Your task to perform on an android device: open app "Reddit" Image 0: 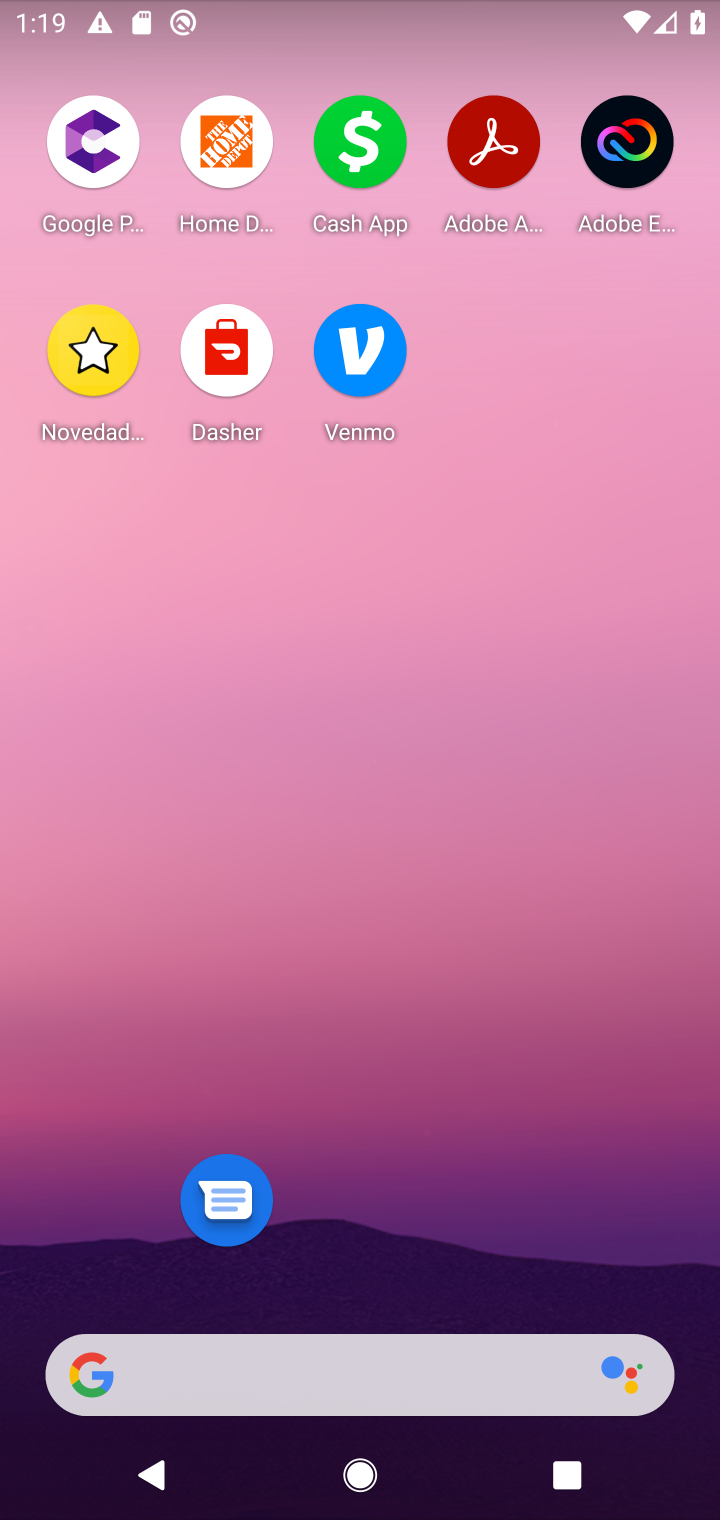
Step 0: drag from (439, 1150) to (419, 225)
Your task to perform on an android device: open app "Reddit" Image 1: 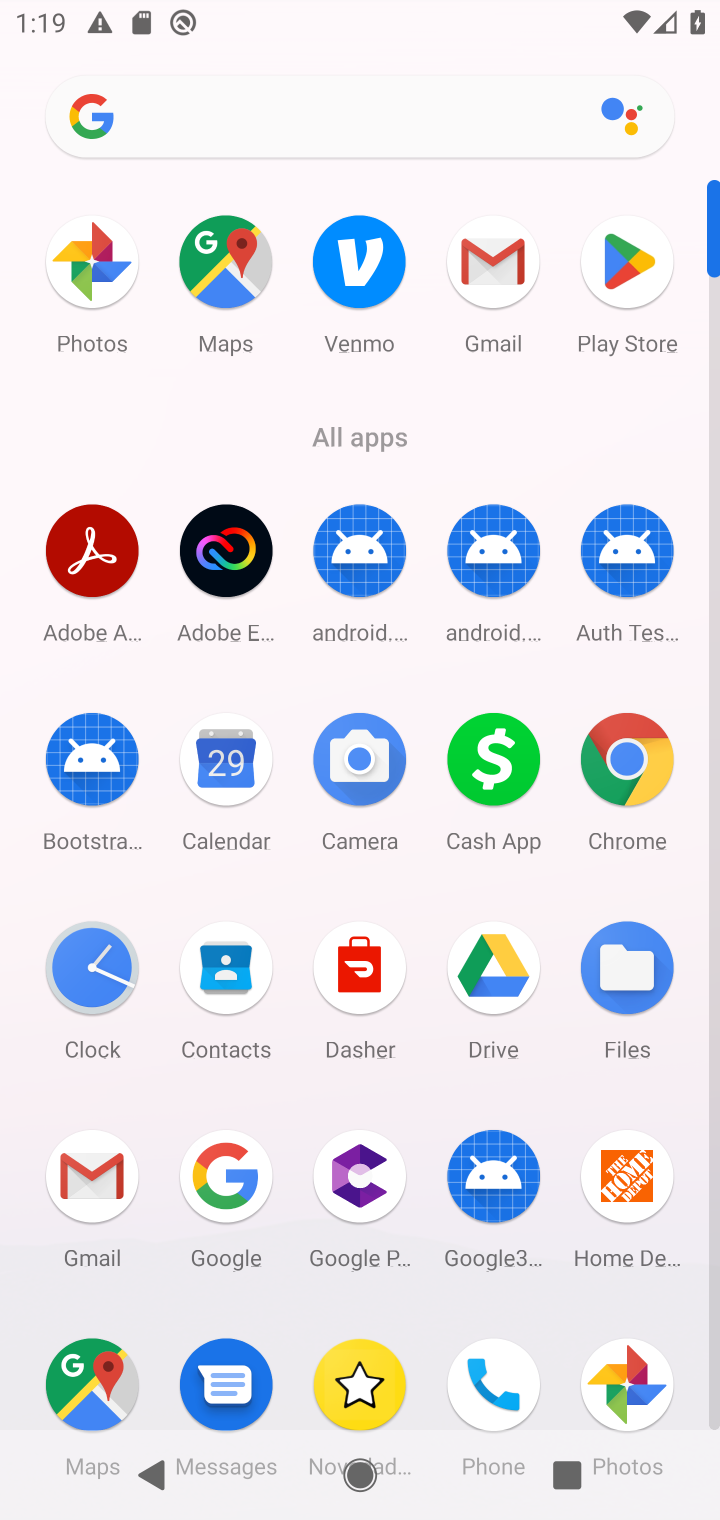
Step 1: click (625, 264)
Your task to perform on an android device: open app "Reddit" Image 2: 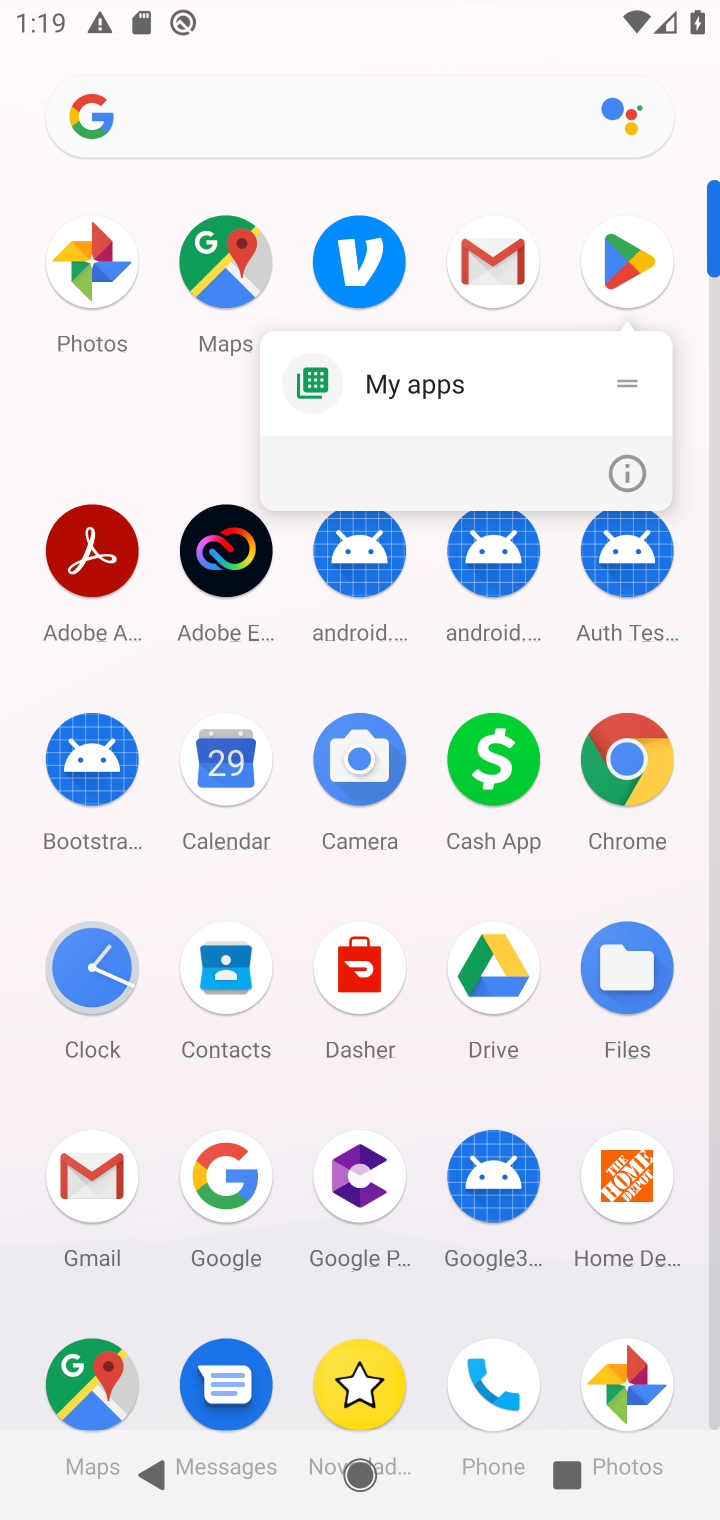
Step 2: click (625, 264)
Your task to perform on an android device: open app "Reddit" Image 3: 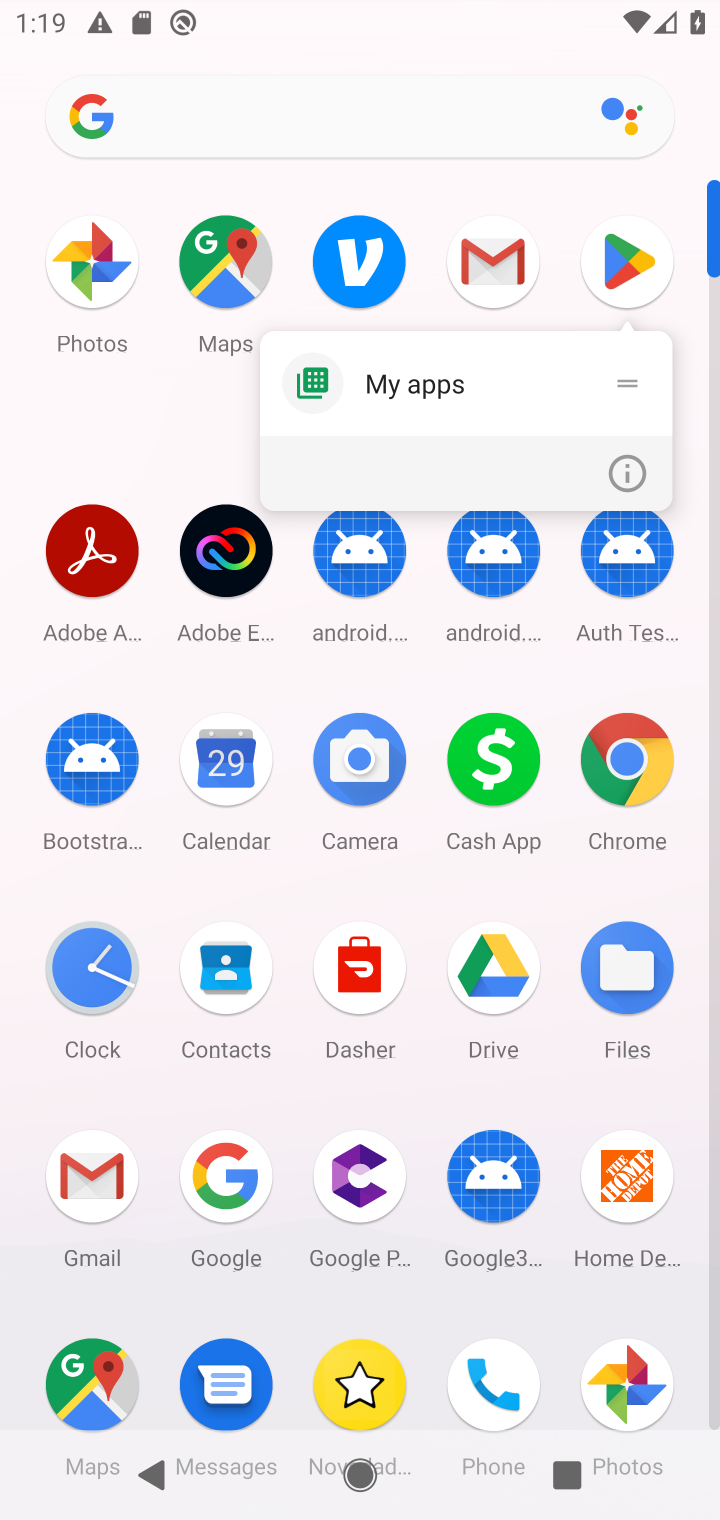
Step 3: click (632, 277)
Your task to perform on an android device: open app "Reddit" Image 4: 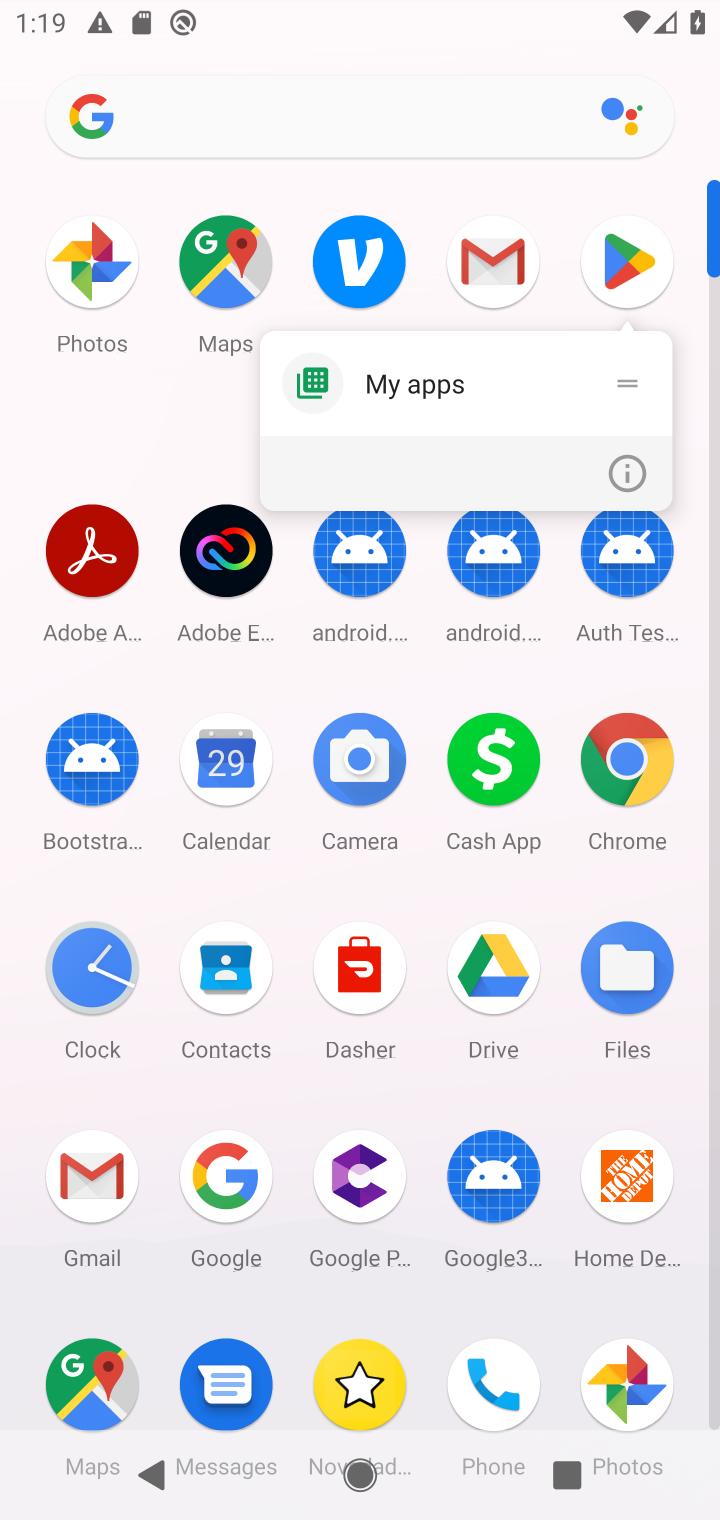
Step 4: click (631, 268)
Your task to perform on an android device: open app "Reddit" Image 5: 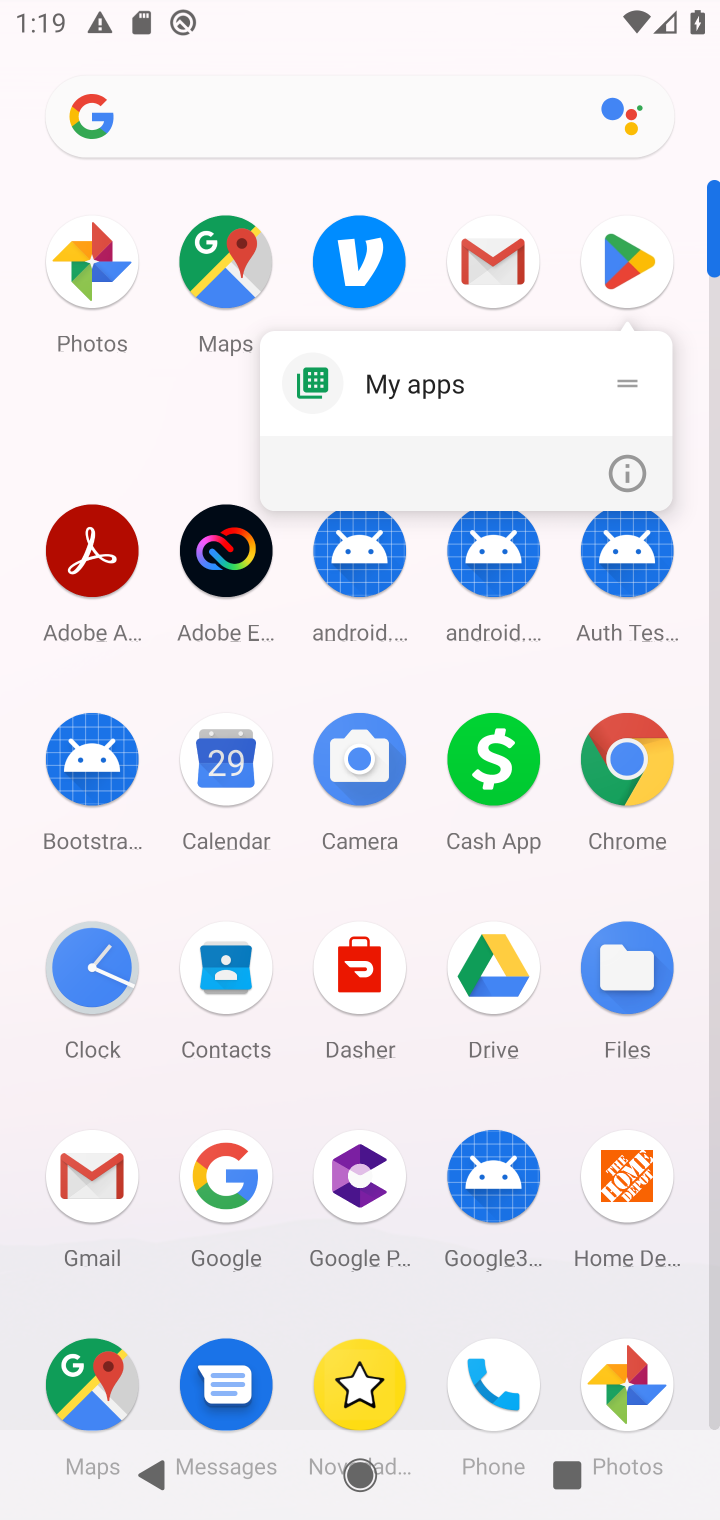
Step 5: click (631, 268)
Your task to perform on an android device: open app "Reddit" Image 6: 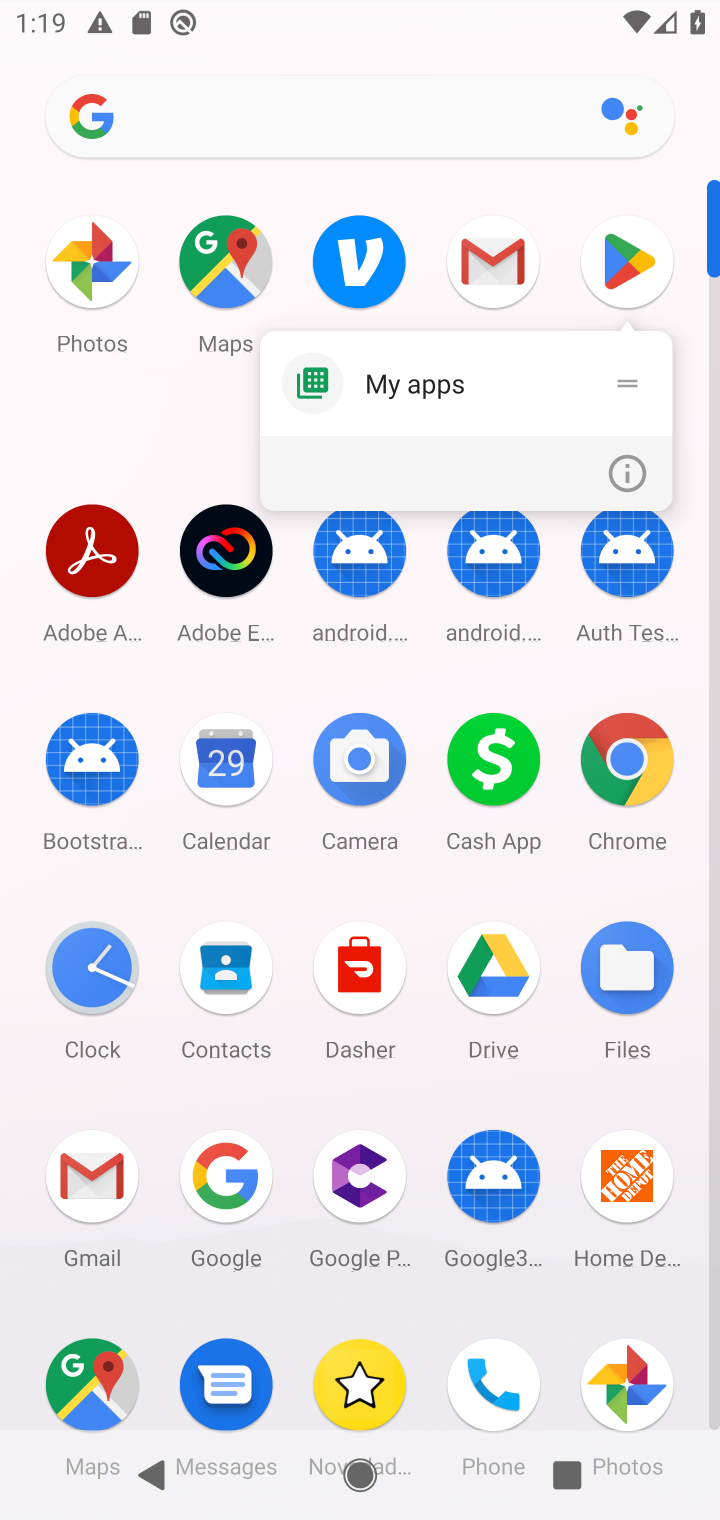
Step 6: click (72, 426)
Your task to perform on an android device: open app "Reddit" Image 7: 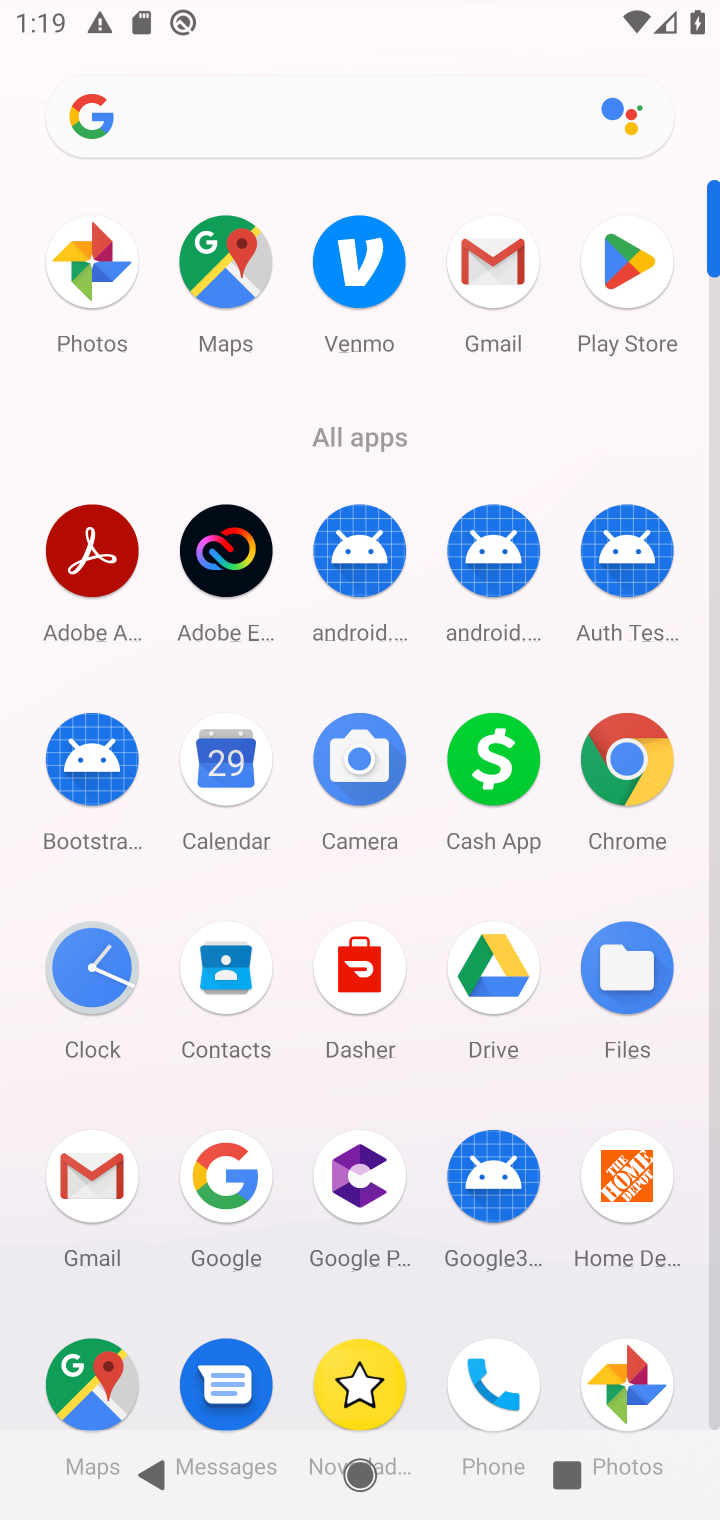
Step 7: click (613, 273)
Your task to perform on an android device: open app "Reddit" Image 8: 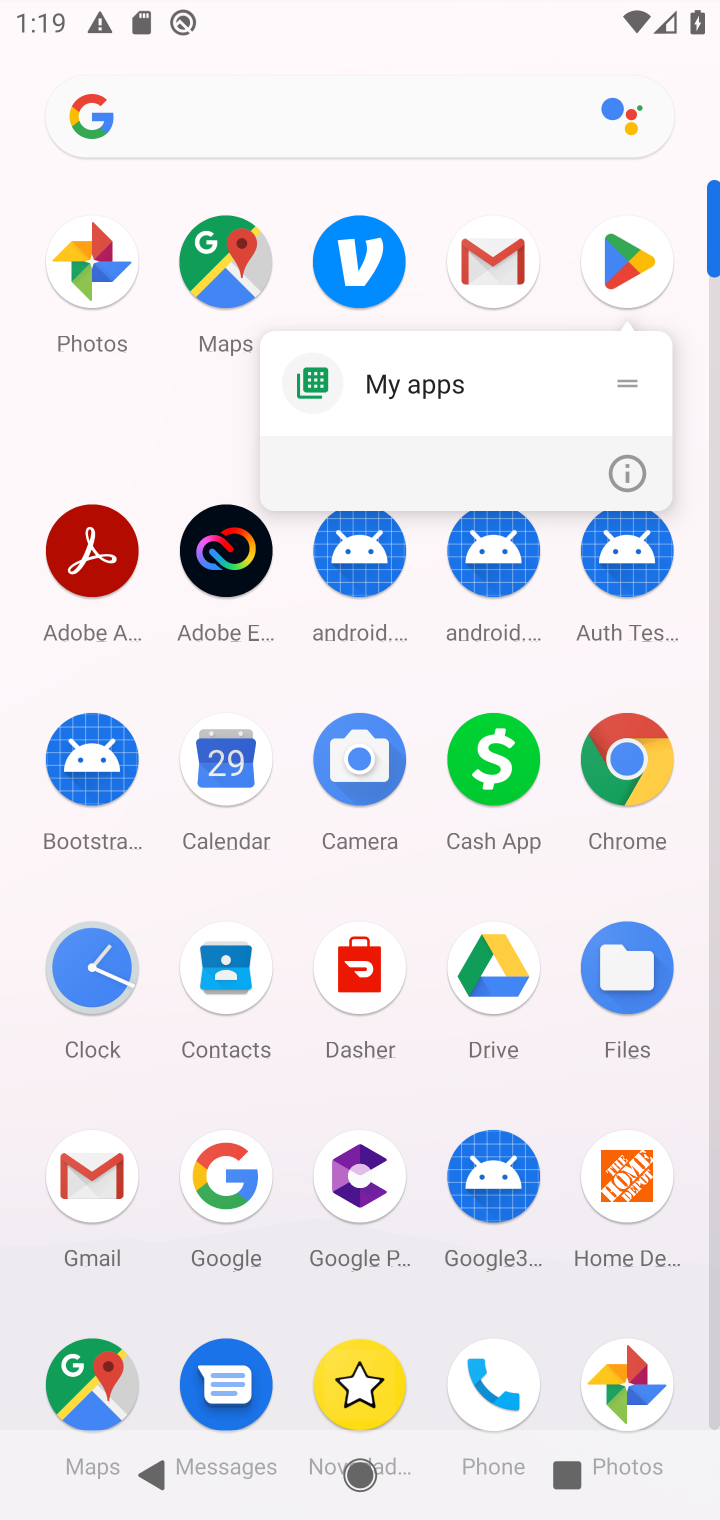
Step 8: click (628, 258)
Your task to perform on an android device: open app "Reddit" Image 9: 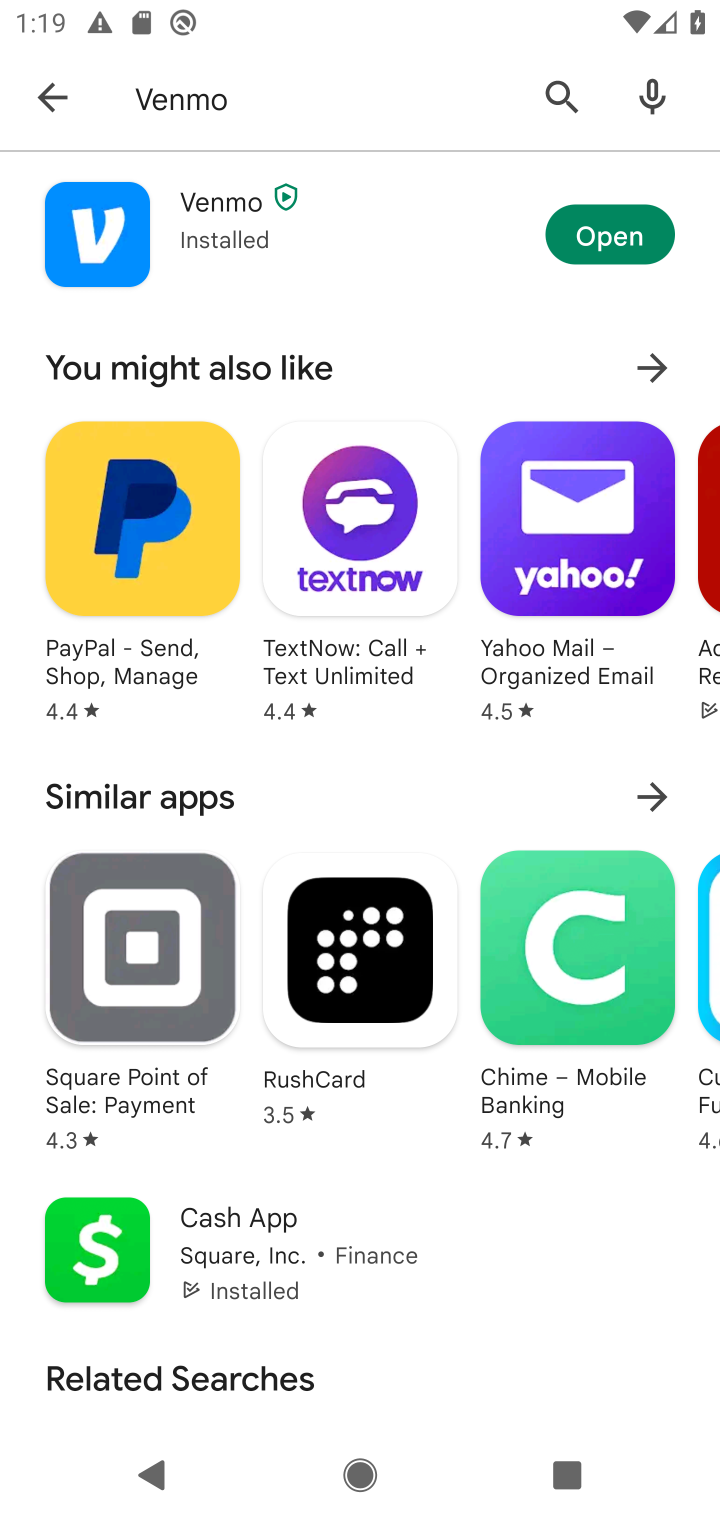
Step 9: click (313, 94)
Your task to perform on an android device: open app "Reddit" Image 10: 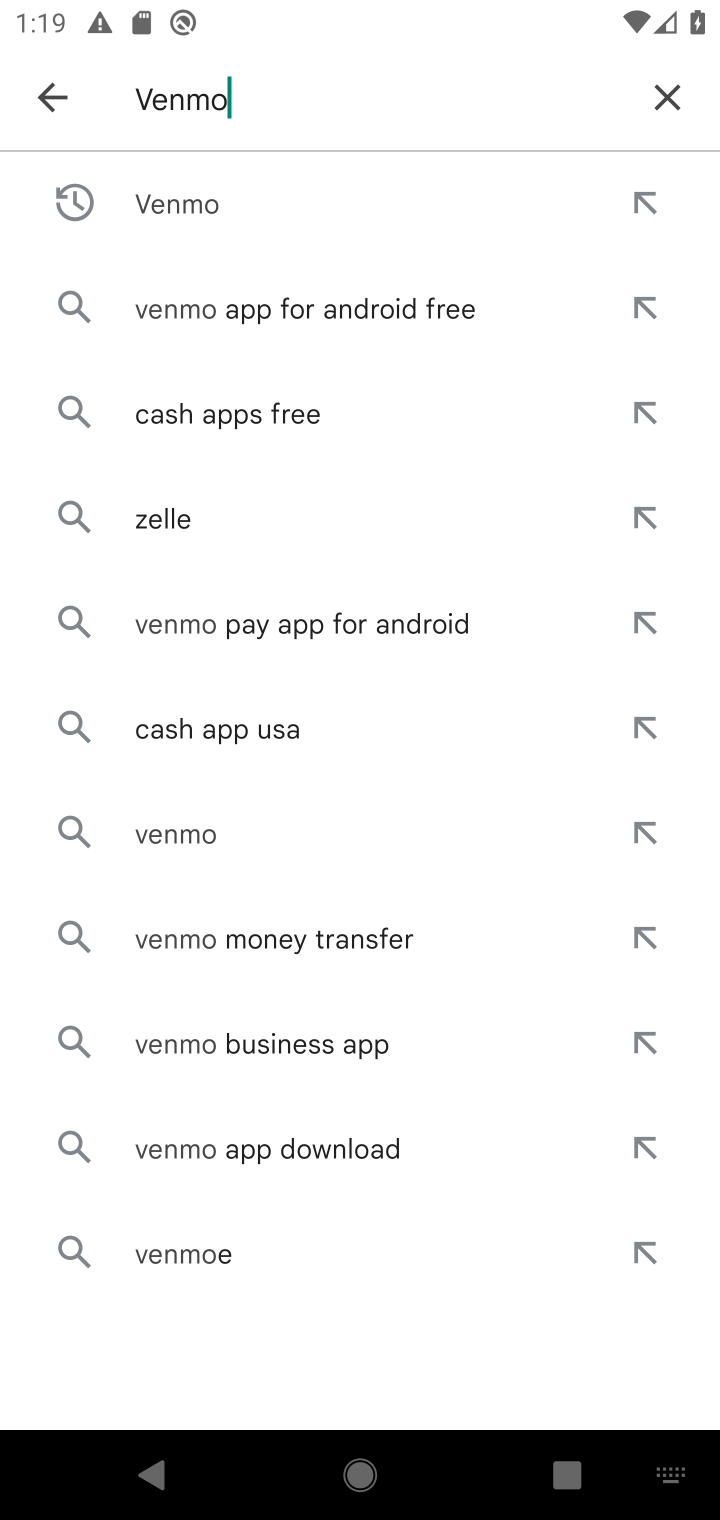
Step 10: click (680, 94)
Your task to perform on an android device: open app "Reddit" Image 11: 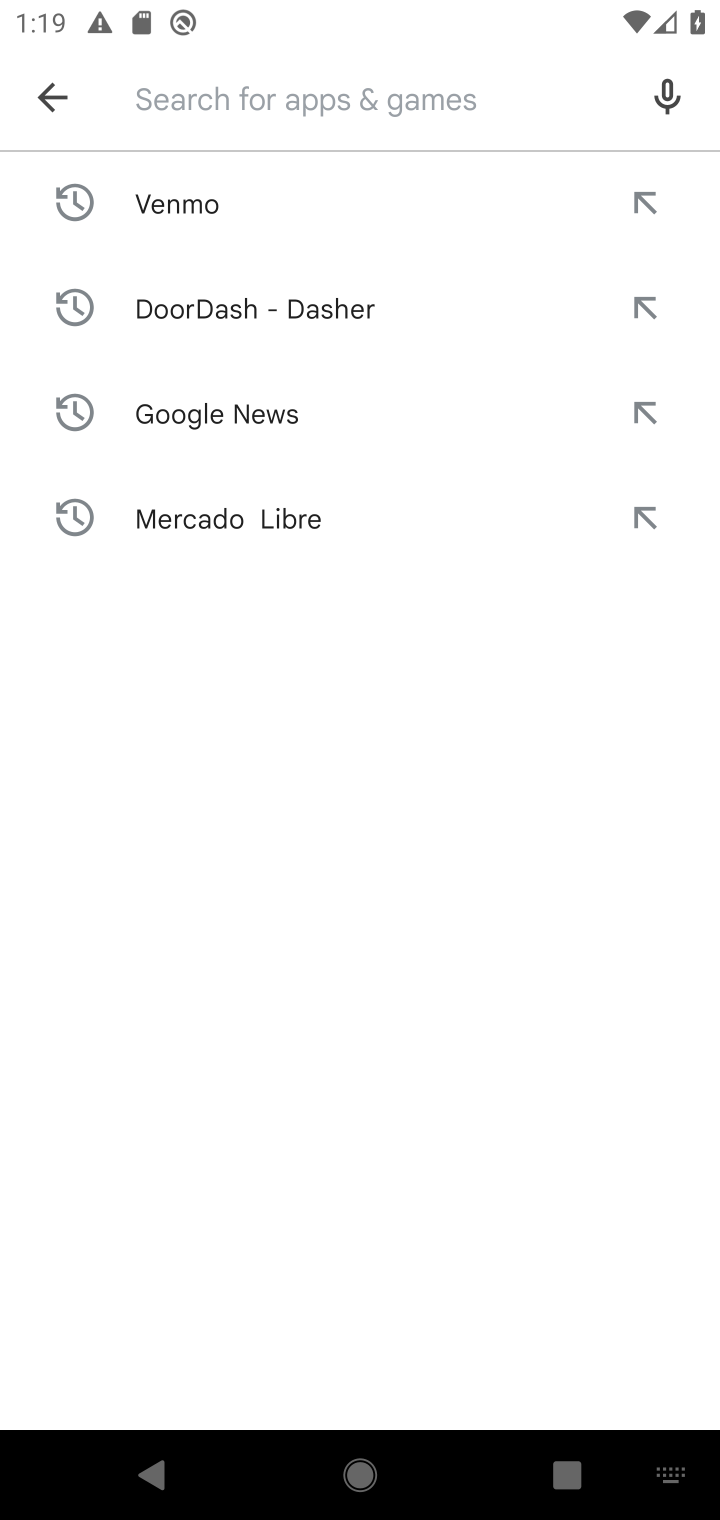
Step 11: type "Reddit"
Your task to perform on an android device: open app "Reddit" Image 12: 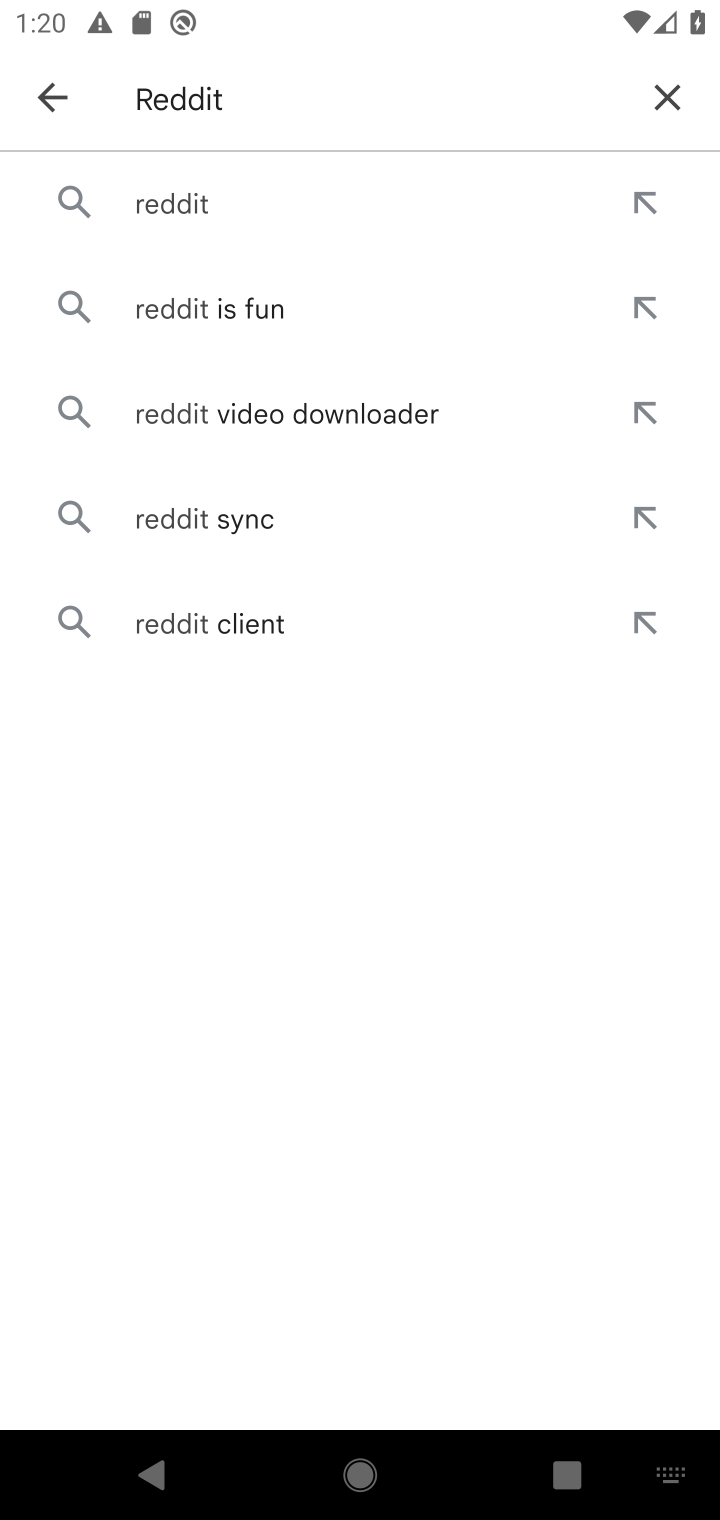
Step 12: press enter
Your task to perform on an android device: open app "Reddit" Image 13: 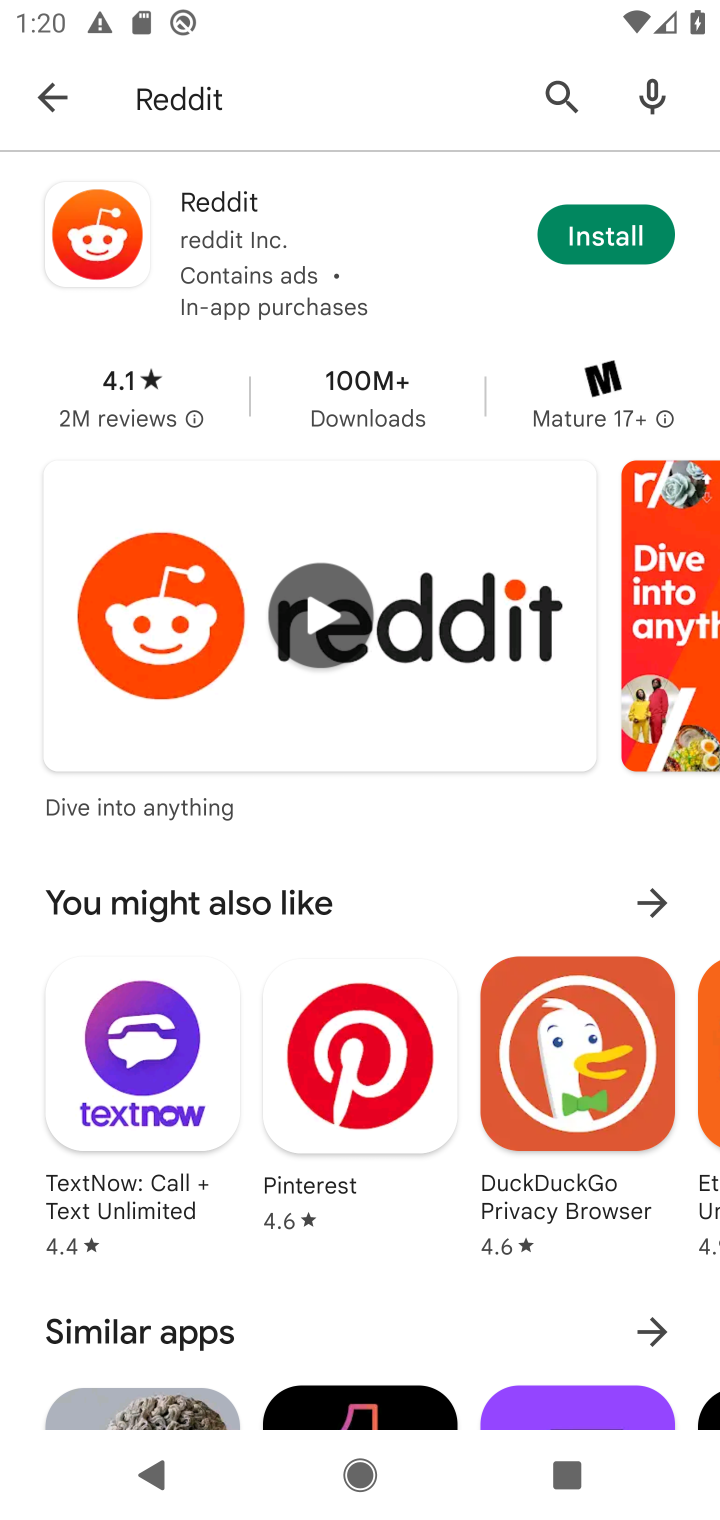
Step 13: task complete